Your task to perform on an android device: Open network settings Image 0: 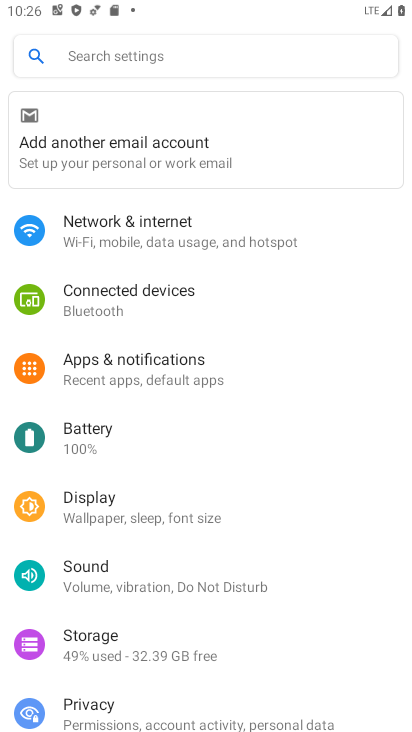
Step 0: click (225, 230)
Your task to perform on an android device: Open network settings Image 1: 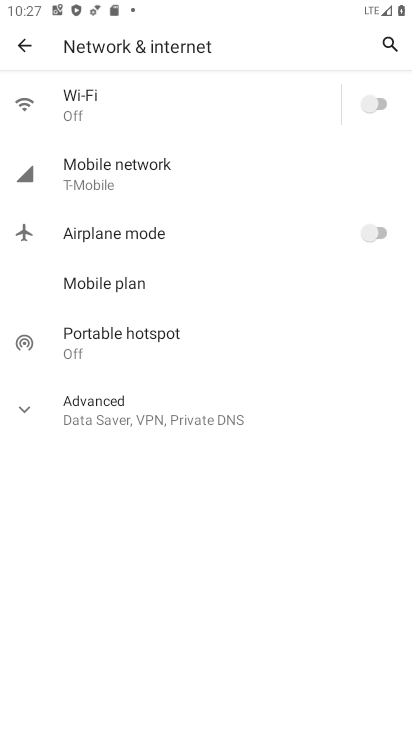
Step 1: click (129, 171)
Your task to perform on an android device: Open network settings Image 2: 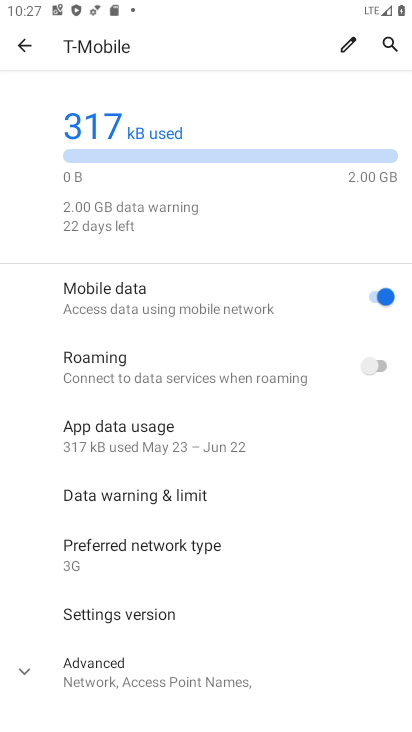
Step 2: task complete